Your task to perform on an android device: Open network settings Image 0: 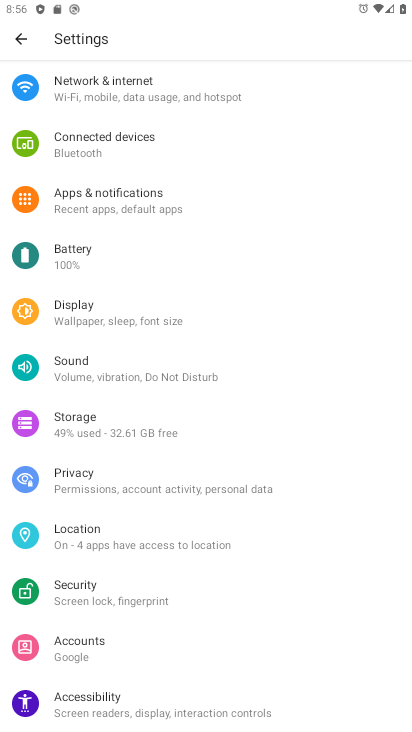
Step 0: click (148, 93)
Your task to perform on an android device: Open network settings Image 1: 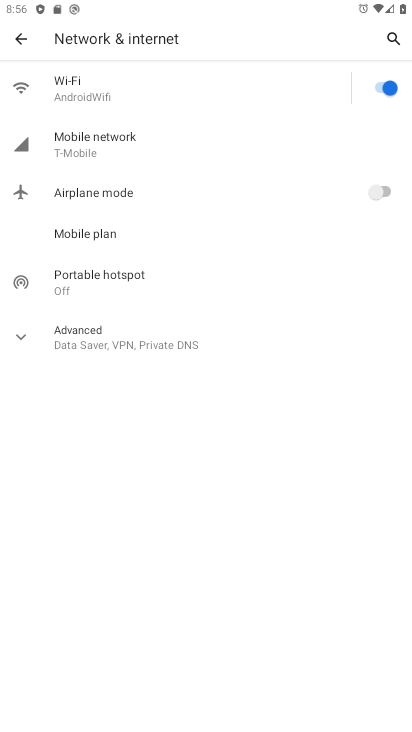
Step 1: task complete